Your task to perform on an android device: Clear the cart on bestbuy.com. Search for "usb-b" on bestbuy.com, select the first entry, add it to the cart, then select checkout. Image 0: 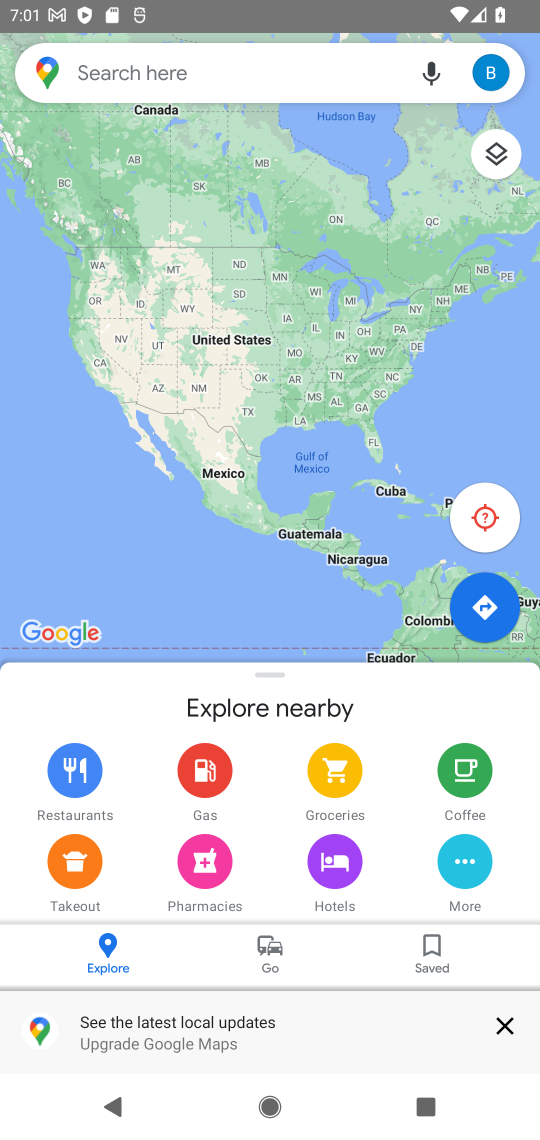
Step 0: press home button
Your task to perform on an android device: Clear the cart on bestbuy.com. Search for "usb-b" on bestbuy.com, select the first entry, add it to the cart, then select checkout. Image 1: 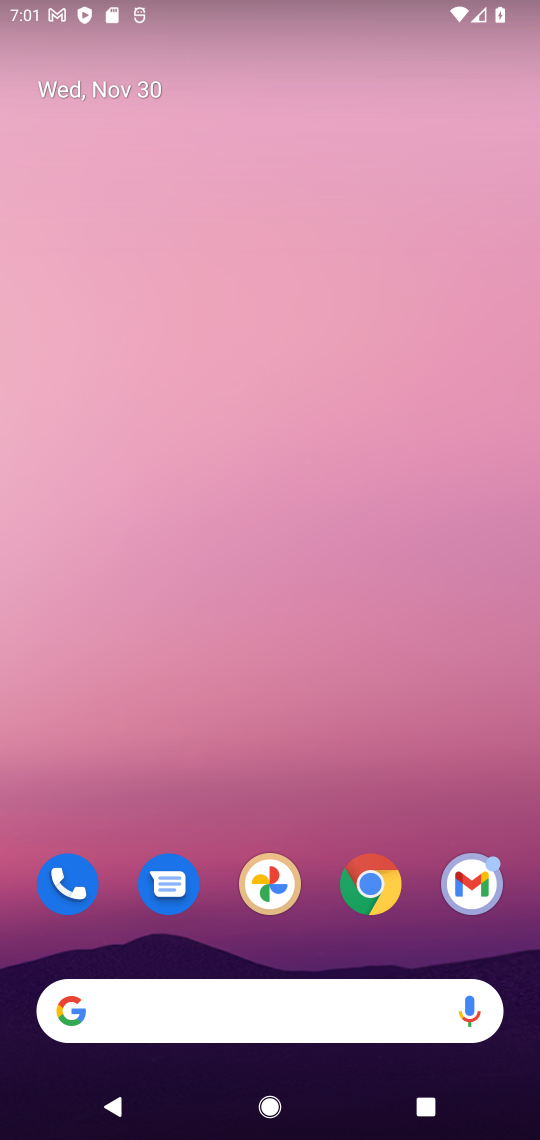
Step 1: click (367, 900)
Your task to perform on an android device: Clear the cart on bestbuy.com. Search for "usb-b" on bestbuy.com, select the first entry, add it to the cart, then select checkout. Image 2: 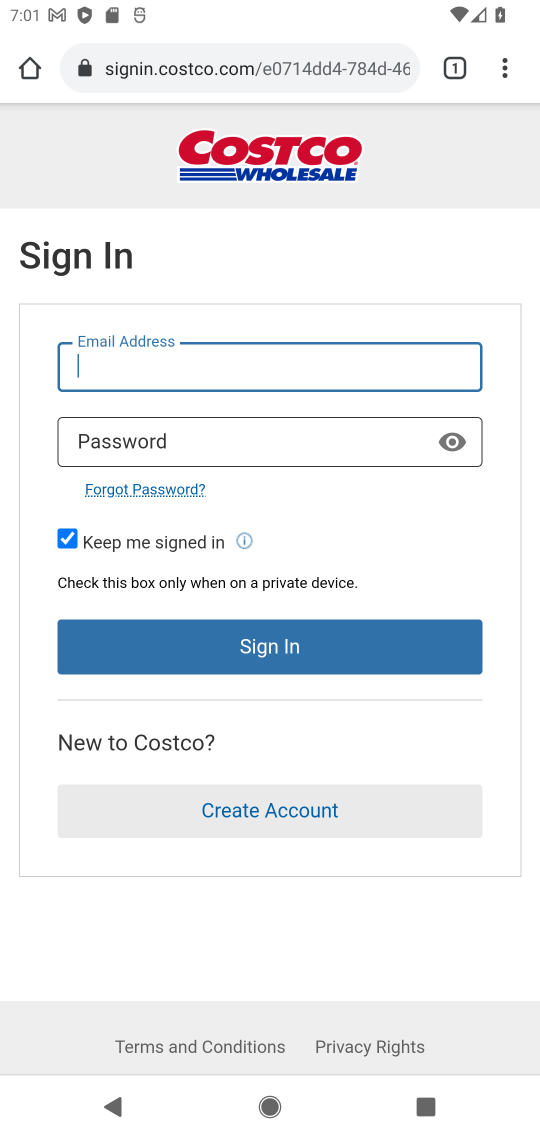
Step 2: click (219, 72)
Your task to perform on an android device: Clear the cart on bestbuy.com. Search for "usb-b" on bestbuy.com, select the first entry, add it to the cart, then select checkout. Image 3: 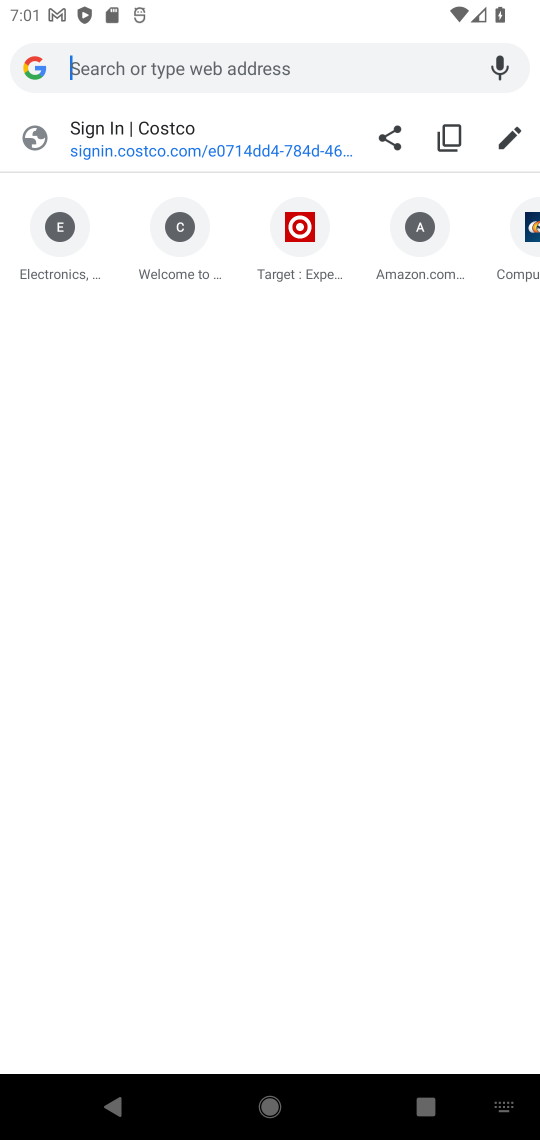
Step 3: type "bestbuy.com"
Your task to perform on an android device: Clear the cart on bestbuy.com. Search for "usb-b" on bestbuy.com, select the first entry, add it to the cart, then select checkout. Image 4: 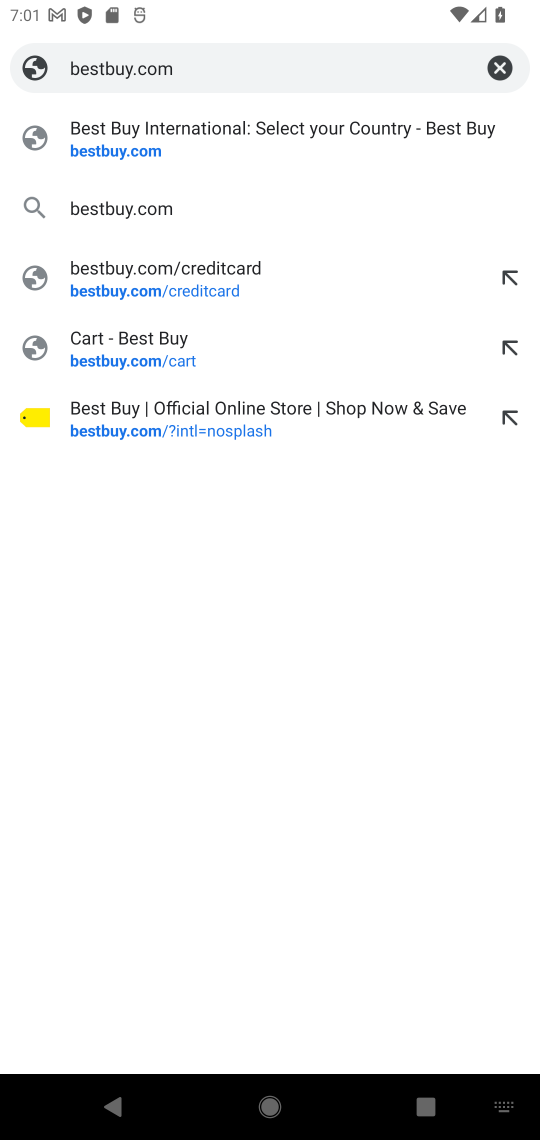
Step 4: click (156, 424)
Your task to perform on an android device: Clear the cart on bestbuy.com. Search for "usb-b" on bestbuy.com, select the first entry, add it to the cart, then select checkout. Image 5: 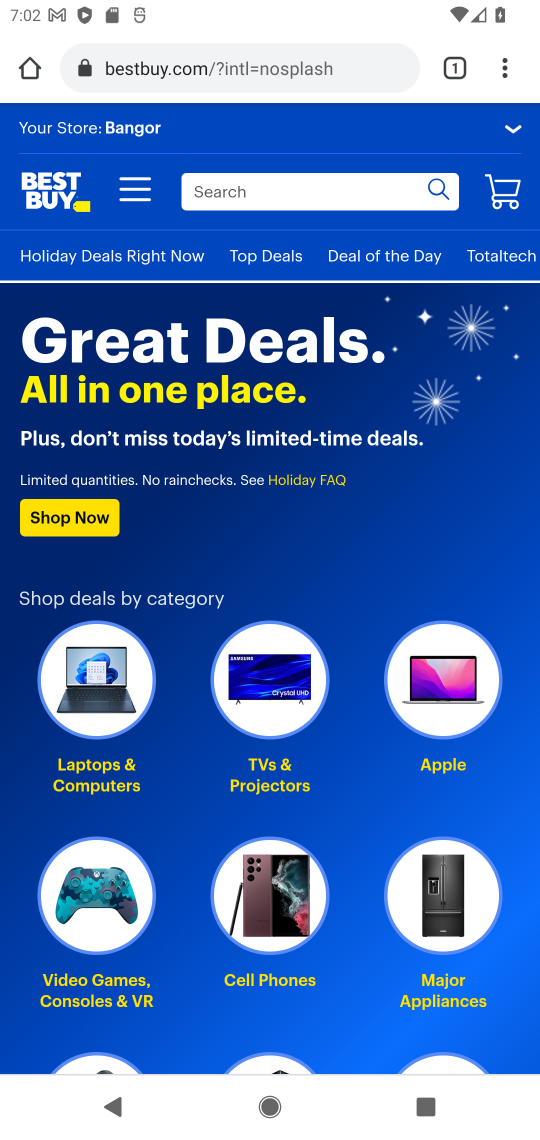
Step 5: click (502, 188)
Your task to perform on an android device: Clear the cart on bestbuy.com. Search for "usb-b" on bestbuy.com, select the first entry, add it to the cart, then select checkout. Image 6: 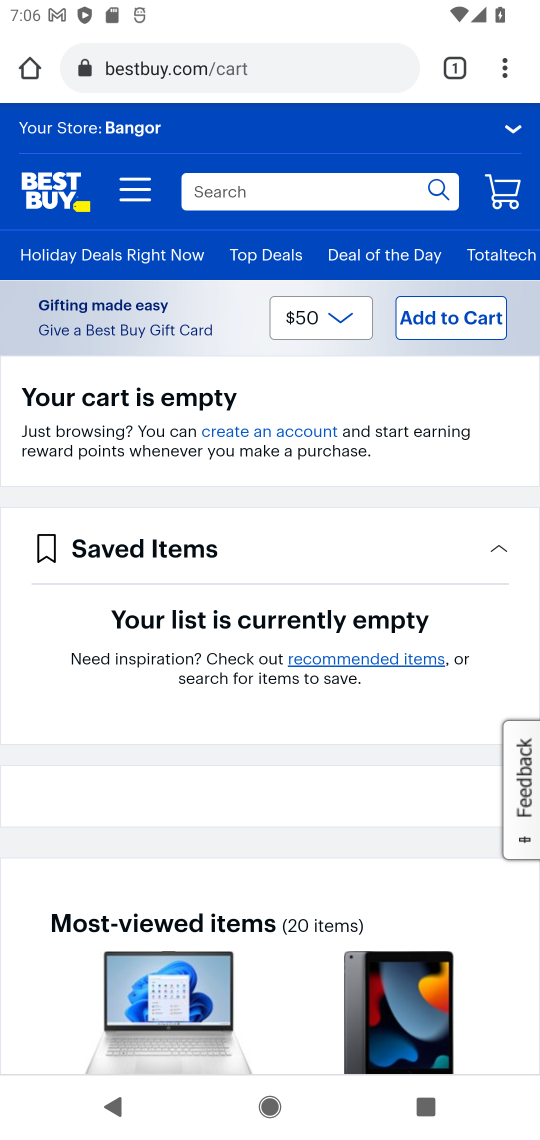
Step 6: click (267, 195)
Your task to perform on an android device: Clear the cart on bestbuy.com. Search for "usb-b" on bestbuy.com, select the first entry, add it to the cart, then select checkout. Image 7: 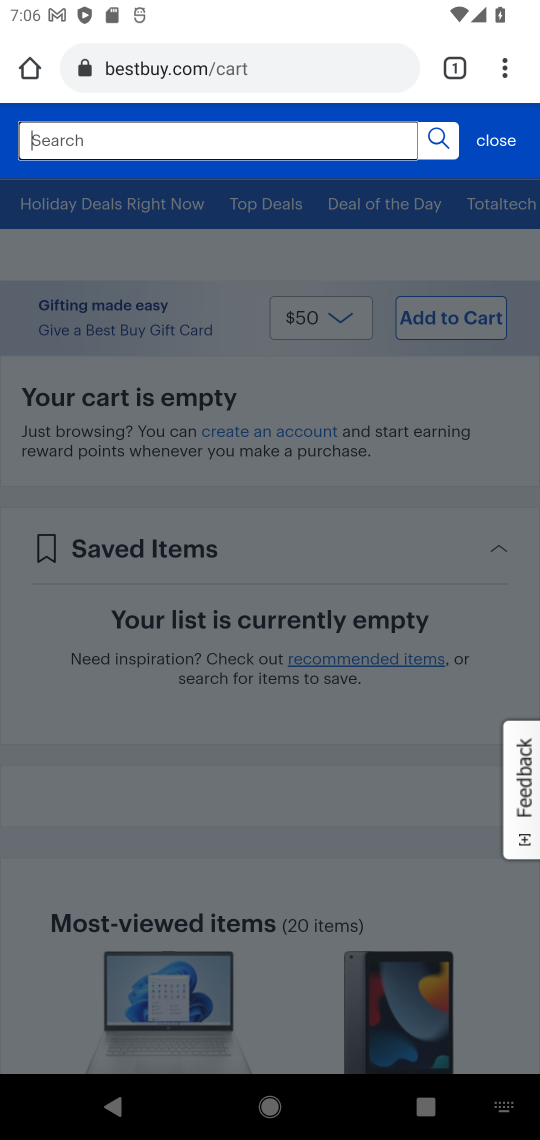
Step 7: type "usb-b"
Your task to perform on an android device: Clear the cart on bestbuy.com. Search for "usb-b" on bestbuy.com, select the first entry, add it to the cart, then select checkout. Image 8: 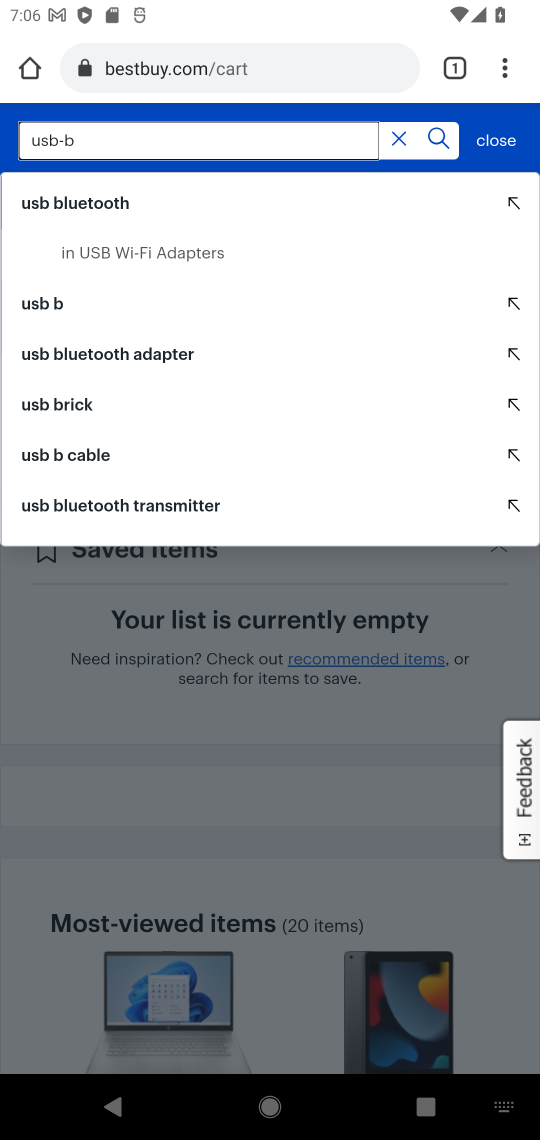
Step 8: click (35, 309)
Your task to perform on an android device: Clear the cart on bestbuy.com. Search for "usb-b" on bestbuy.com, select the first entry, add it to the cart, then select checkout. Image 9: 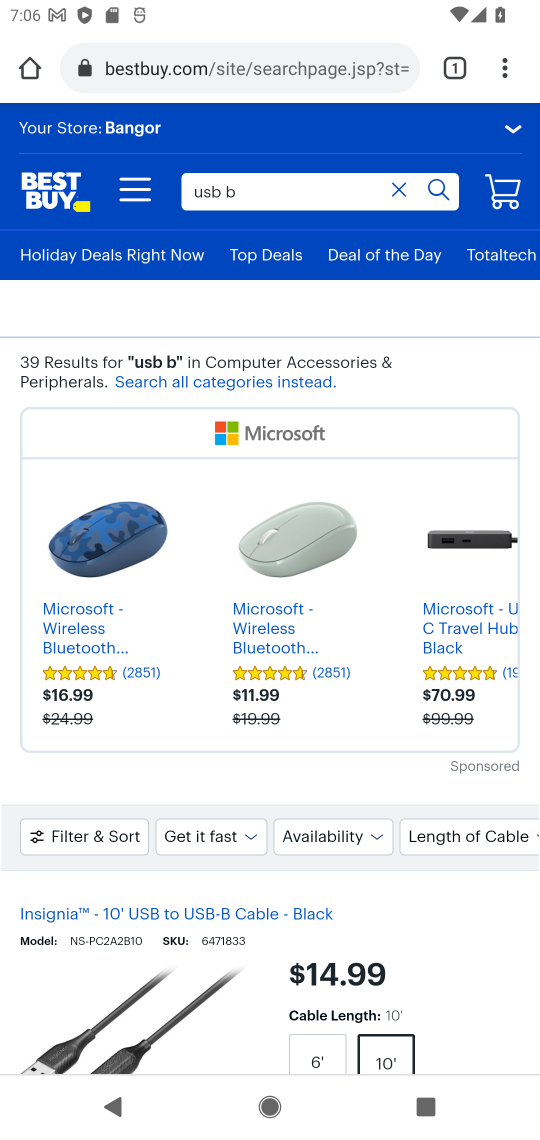
Step 9: drag from (318, 964) to (296, 686)
Your task to perform on an android device: Clear the cart on bestbuy.com. Search for "usb-b" on bestbuy.com, select the first entry, add it to the cart, then select checkout. Image 10: 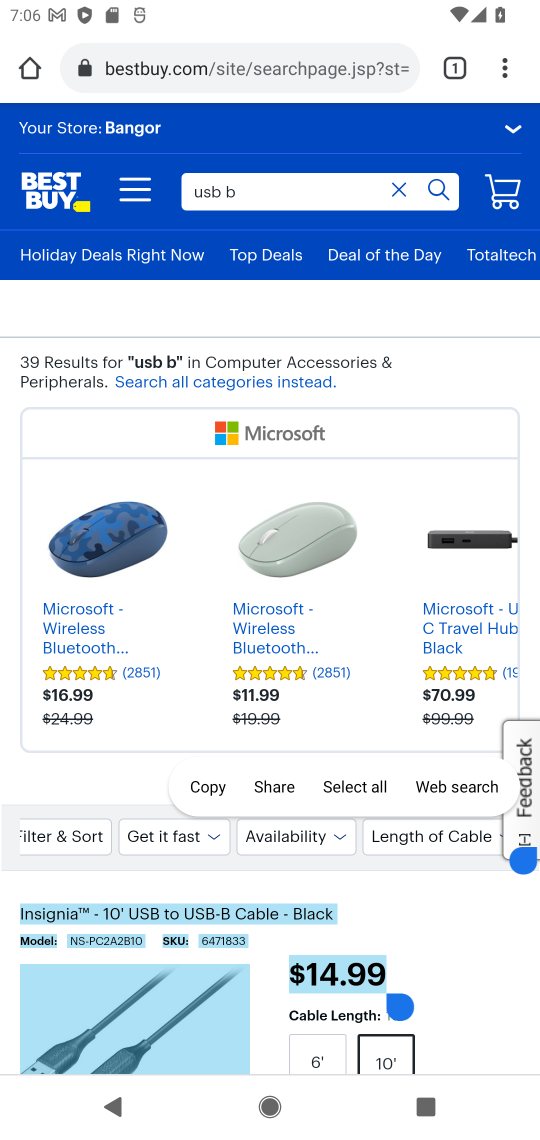
Step 10: drag from (465, 924) to (423, 607)
Your task to perform on an android device: Clear the cart on bestbuy.com. Search for "usb-b" on bestbuy.com, select the first entry, add it to the cart, then select checkout. Image 11: 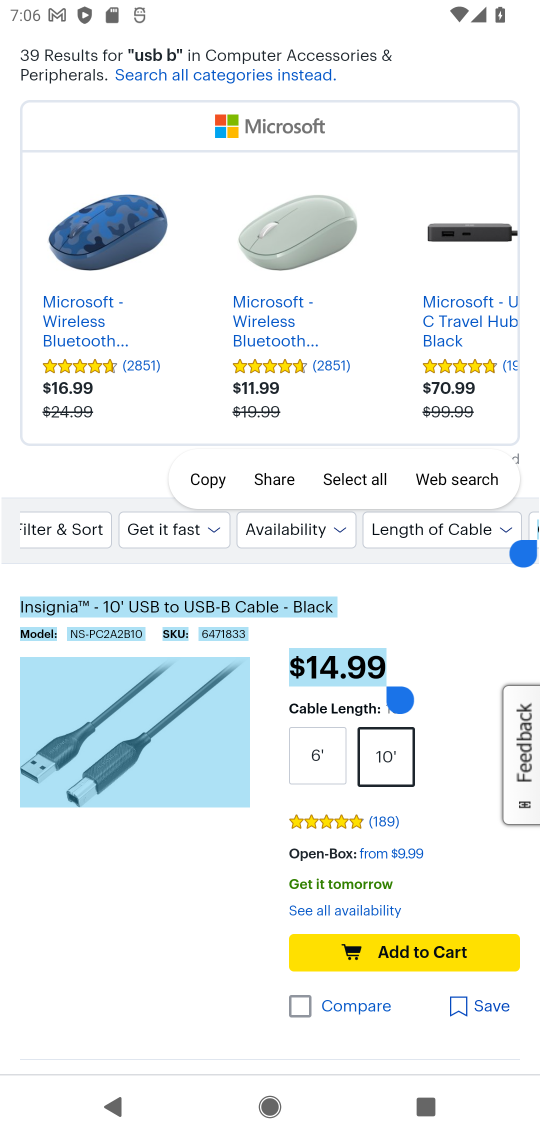
Step 11: click (393, 953)
Your task to perform on an android device: Clear the cart on bestbuy.com. Search for "usb-b" on bestbuy.com, select the first entry, add it to the cart, then select checkout. Image 12: 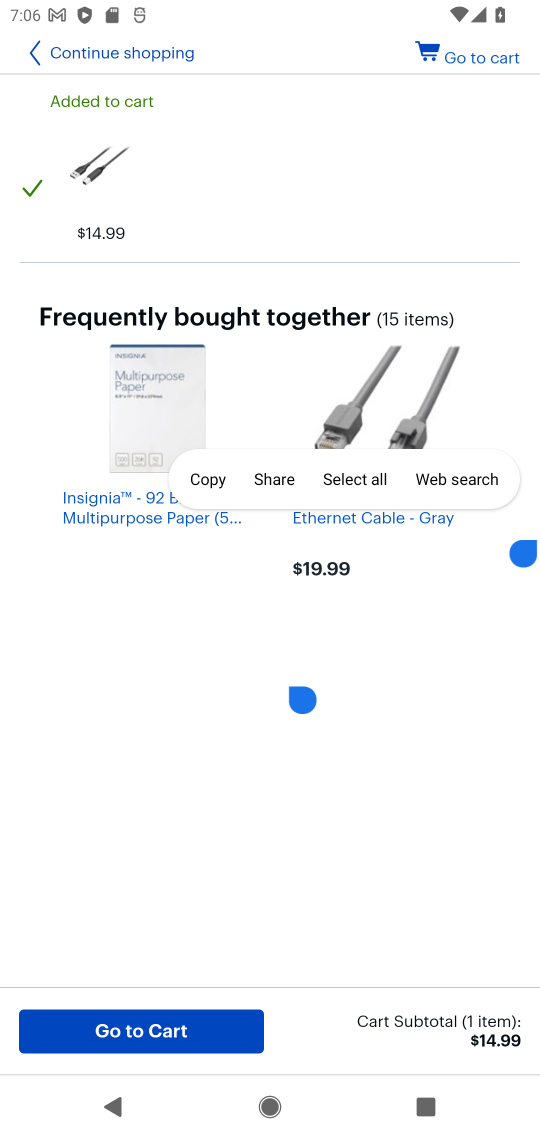
Step 12: click (472, 63)
Your task to perform on an android device: Clear the cart on bestbuy.com. Search for "usb-b" on bestbuy.com, select the first entry, add it to the cart, then select checkout. Image 13: 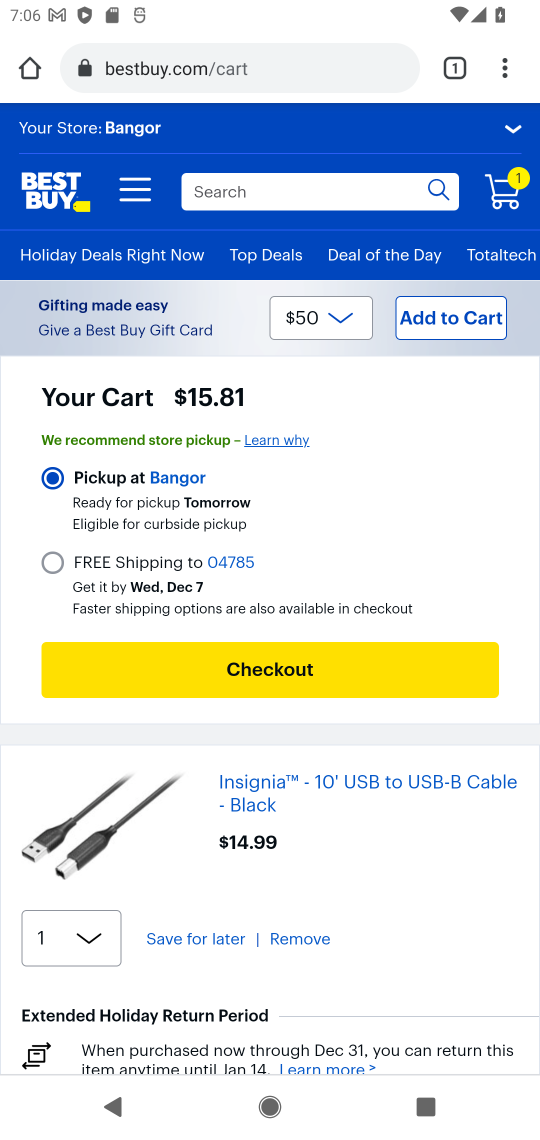
Step 13: click (249, 665)
Your task to perform on an android device: Clear the cart on bestbuy.com. Search for "usb-b" on bestbuy.com, select the first entry, add it to the cart, then select checkout. Image 14: 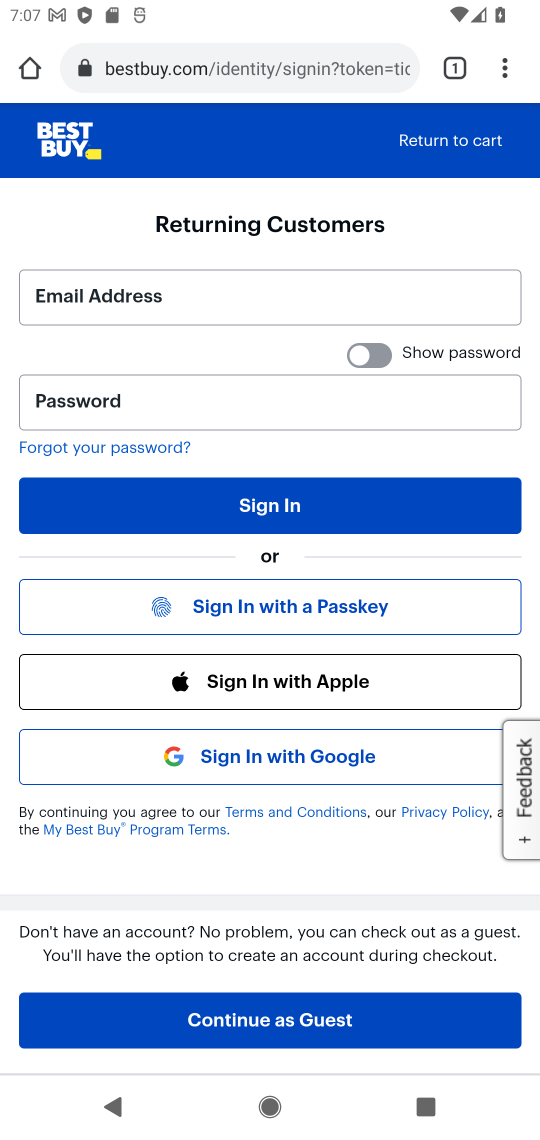
Step 14: task complete